Your task to perform on an android device: Open the stopwatch Image 0: 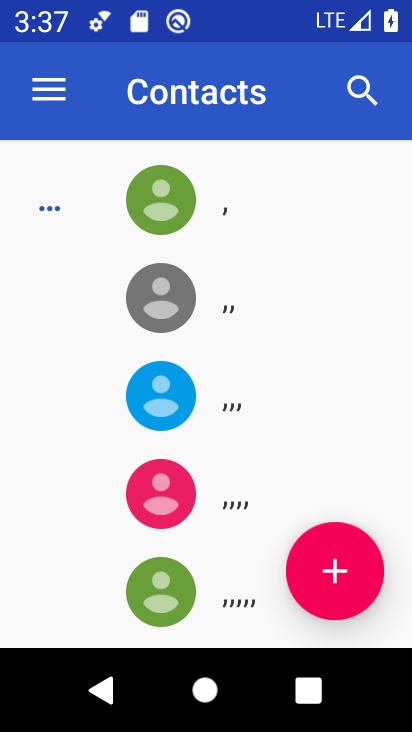
Step 0: press home button
Your task to perform on an android device: Open the stopwatch Image 1: 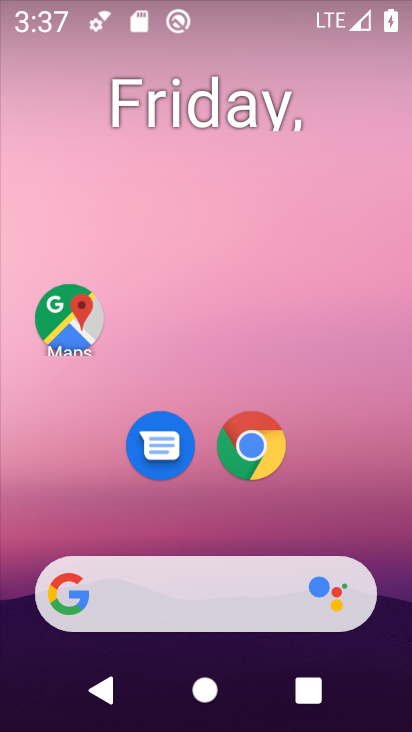
Step 1: drag from (396, 583) to (320, 129)
Your task to perform on an android device: Open the stopwatch Image 2: 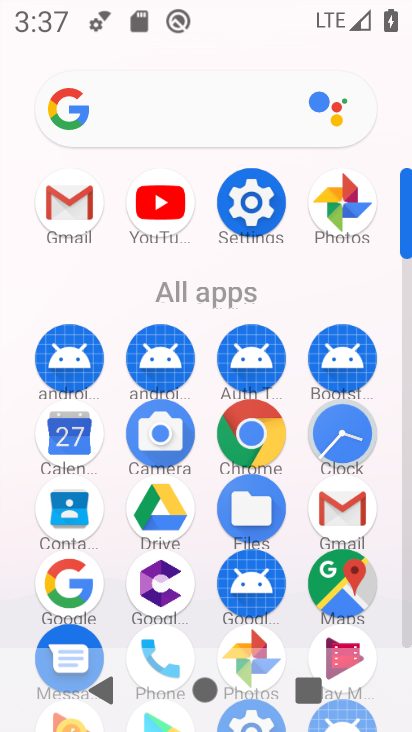
Step 2: click (352, 420)
Your task to perform on an android device: Open the stopwatch Image 3: 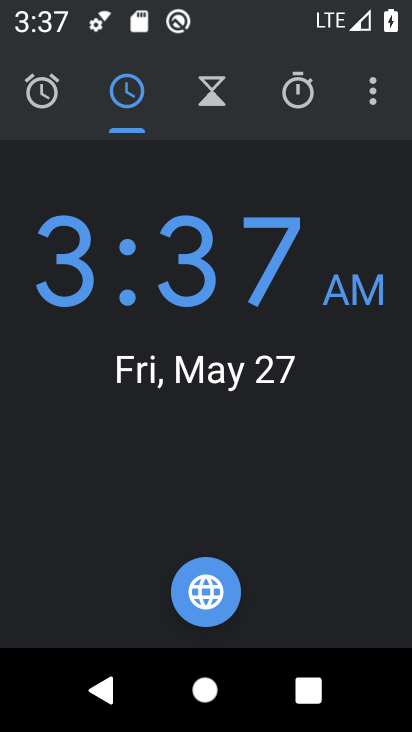
Step 3: click (297, 112)
Your task to perform on an android device: Open the stopwatch Image 4: 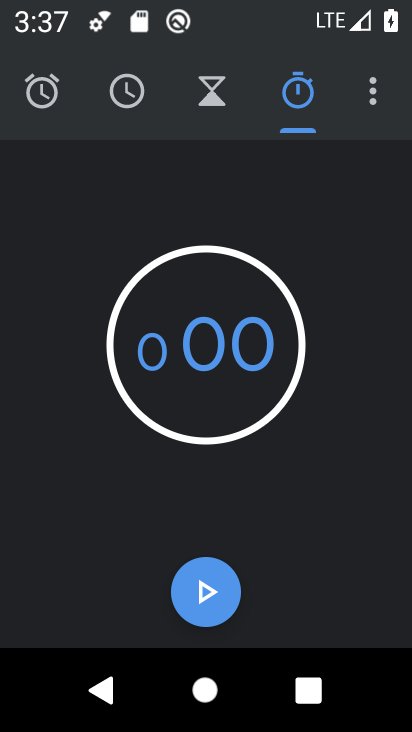
Step 4: task complete